Your task to perform on an android device: turn off notifications in google photos Image 0: 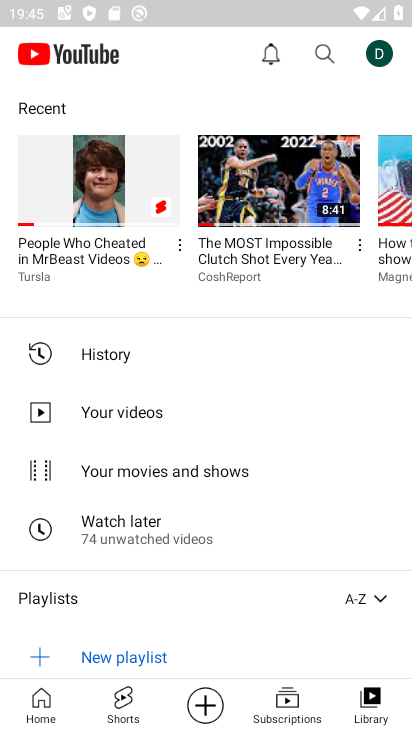
Step 0: press back button
Your task to perform on an android device: turn off notifications in google photos Image 1: 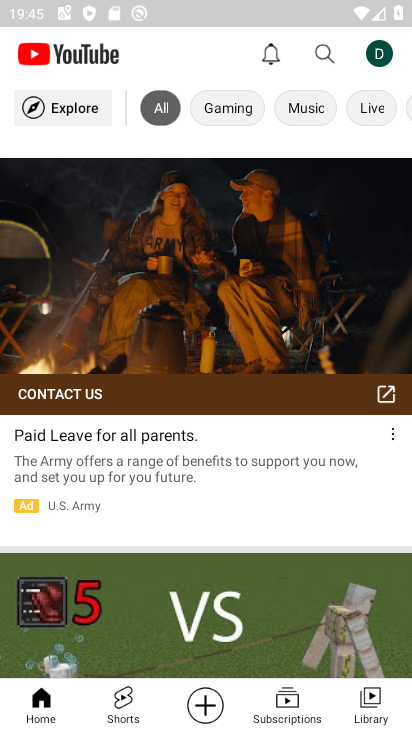
Step 1: press home button
Your task to perform on an android device: turn off notifications in google photos Image 2: 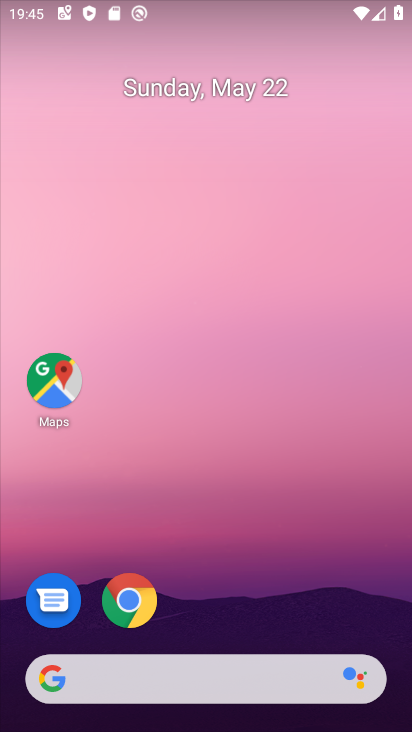
Step 2: drag from (284, 599) to (243, 50)
Your task to perform on an android device: turn off notifications in google photos Image 3: 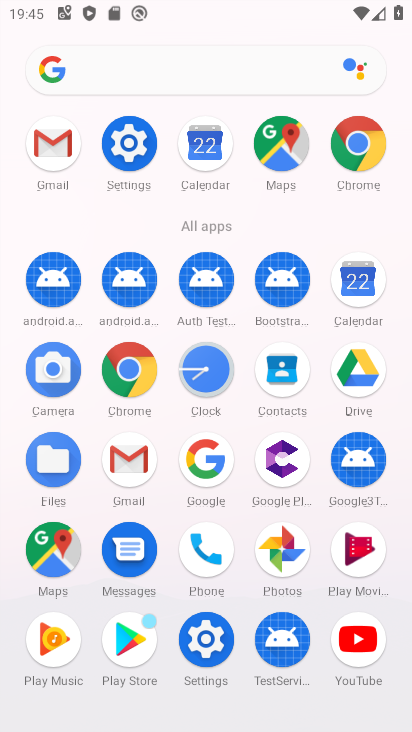
Step 3: click (288, 544)
Your task to perform on an android device: turn off notifications in google photos Image 4: 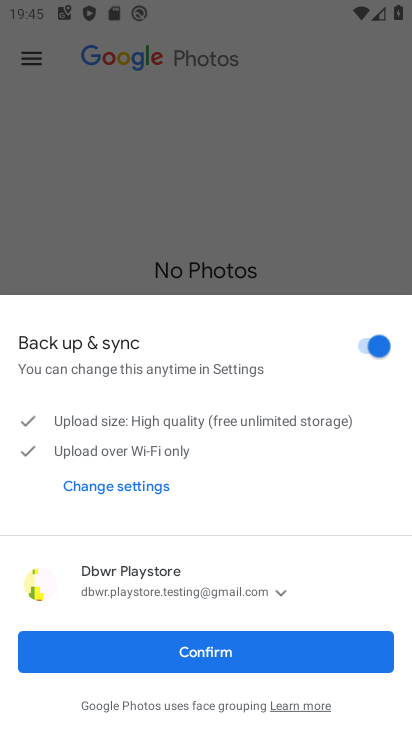
Step 4: click (244, 661)
Your task to perform on an android device: turn off notifications in google photos Image 5: 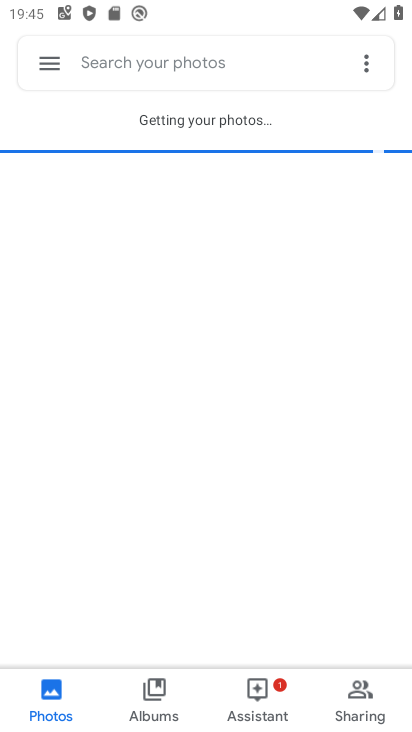
Step 5: click (45, 53)
Your task to perform on an android device: turn off notifications in google photos Image 6: 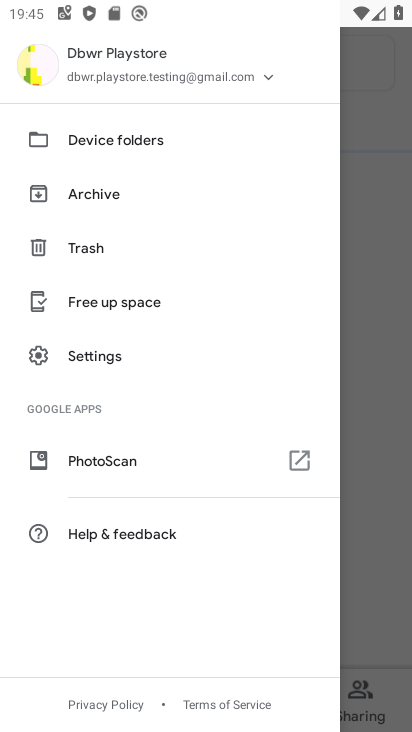
Step 6: click (96, 355)
Your task to perform on an android device: turn off notifications in google photos Image 7: 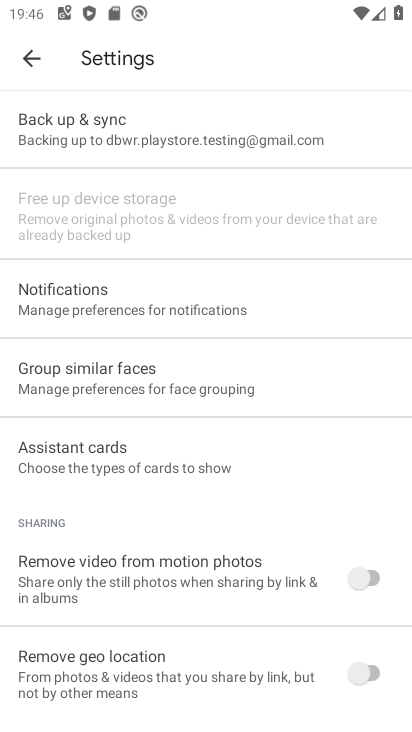
Step 7: click (185, 306)
Your task to perform on an android device: turn off notifications in google photos Image 8: 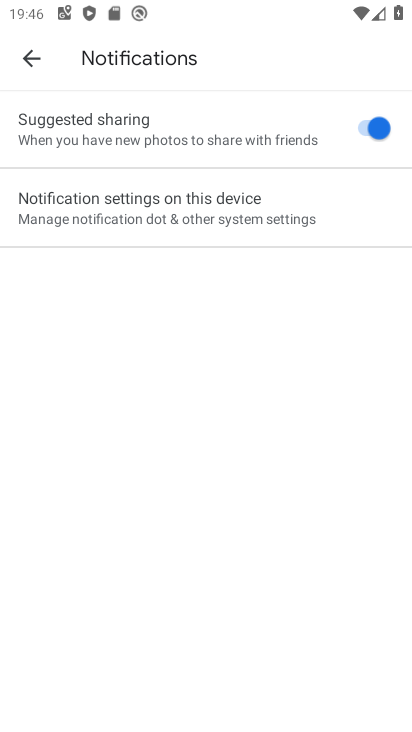
Step 8: click (230, 201)
Your task to perform on an android device: turn off notifications in google photos Image 9: 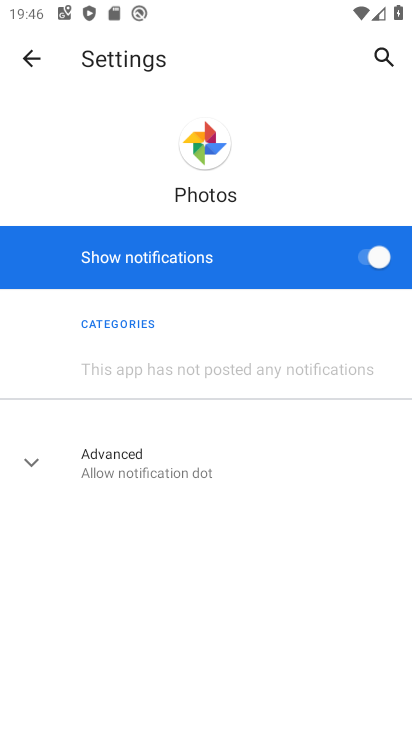
Step 9: click (364, 253)
Your task to perform on an android device: turn off notifications in google photos Image 10: 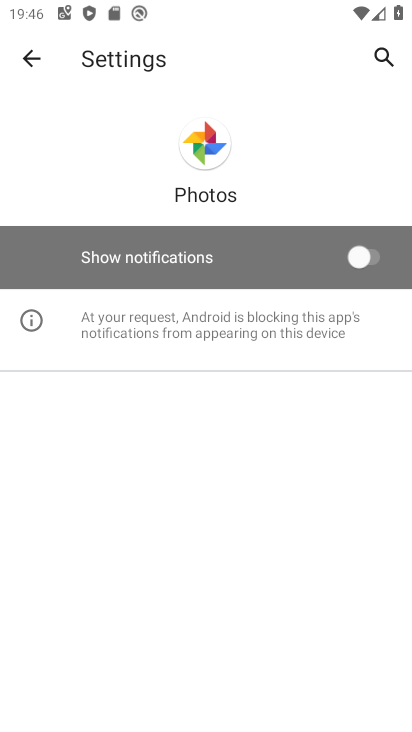
Step 10: task complete